Your task to perform on an android device: turn vacation reply on in the gmail app Image 0: 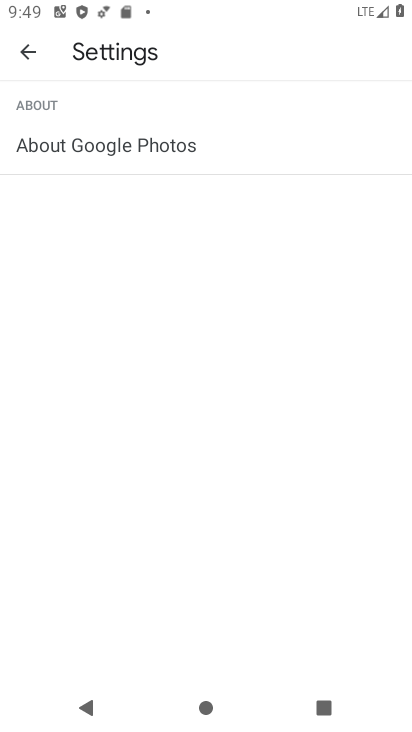
Step 0: press home button
Your task to perform on an android device: turn vacation reply on in the gmail app Image 1: 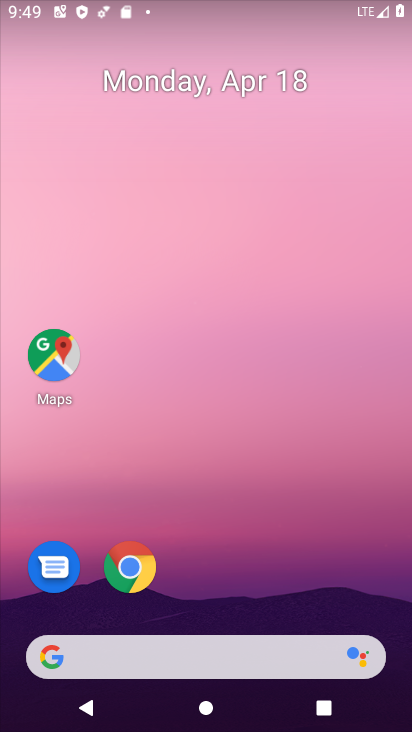
Step 1: drag from (301, 549) to (291, 175)
Your task to perform on an android device: turn vacation reply on in the gmail app Image 2: 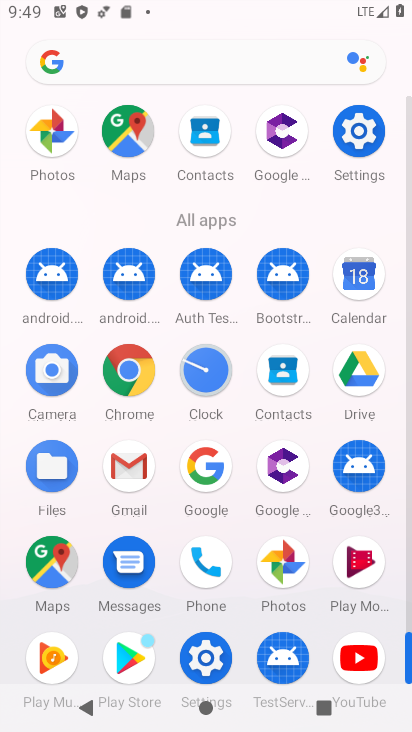
Step 2: click (142, 471)
Your task to perform on an android device: turn vacation reply on in the gmail app Image 3: 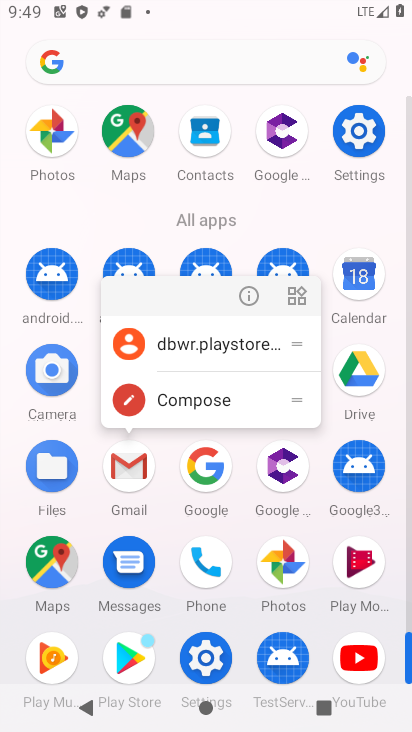
Step 3: click (143, 473)
Your task to perform on an android device: turn vacation reply on in the gmail app Image 4: 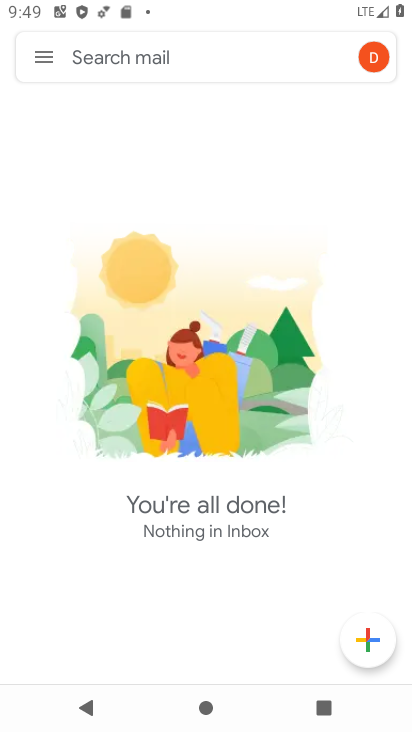
Step 4: click (40, 51)
Your task to perform on an android device: turn vacation reply on in the gmail app Image 5: 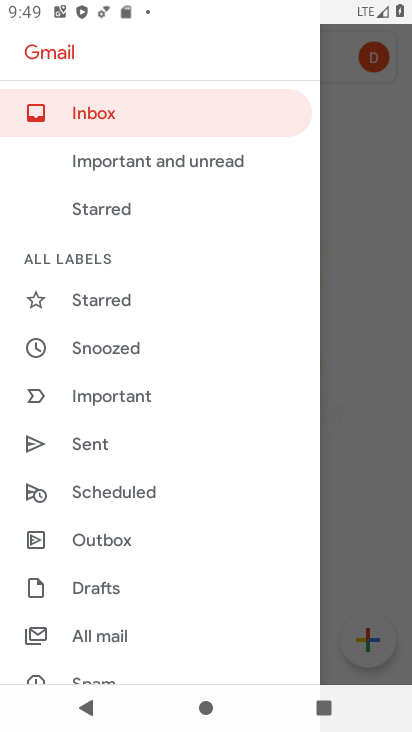
Step 5: drag from (194, 642) to (258, 302)
Your task to perform on an android device: turn vacation reply on in the gmail app Image 6: 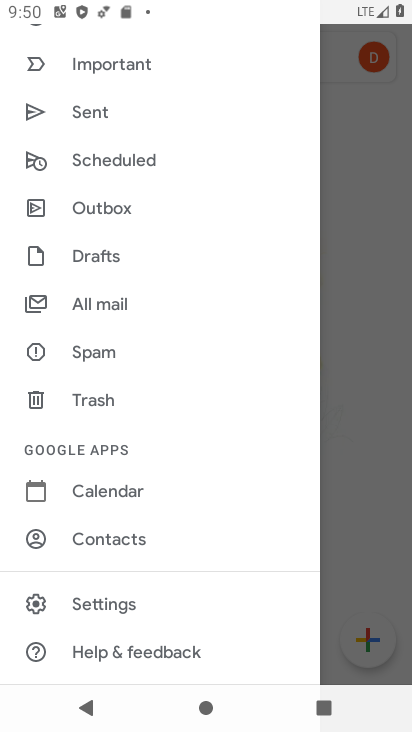
Step 6: click (95, 598)
Your task to perform on an android device: turn vacation reply on in the gmail app Image 7: 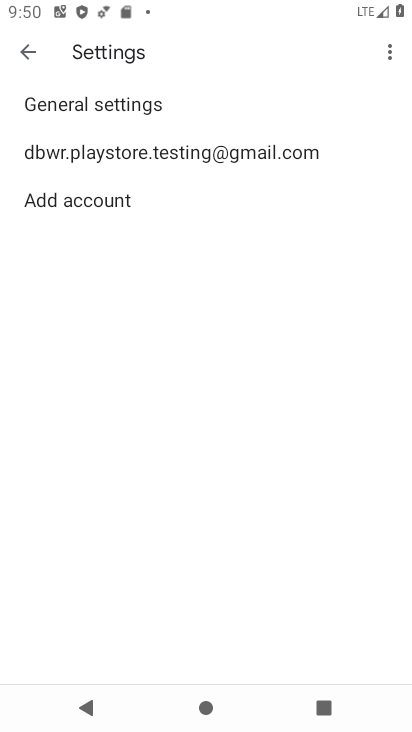
Step 7: click (267, 140)
Your task to perform on an android device: turn vacation reply on in the gmail app Image 8: 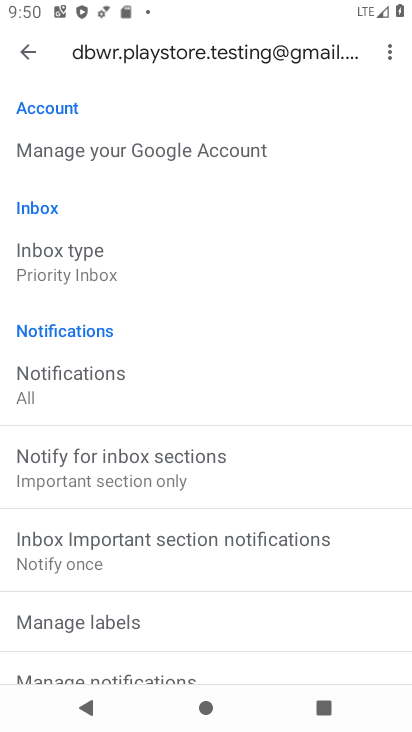
Step 8: drag from (235, 618) to (287, 300)
Your task to perform on an android device: turn vacation reply on in the gmail app Image 9: 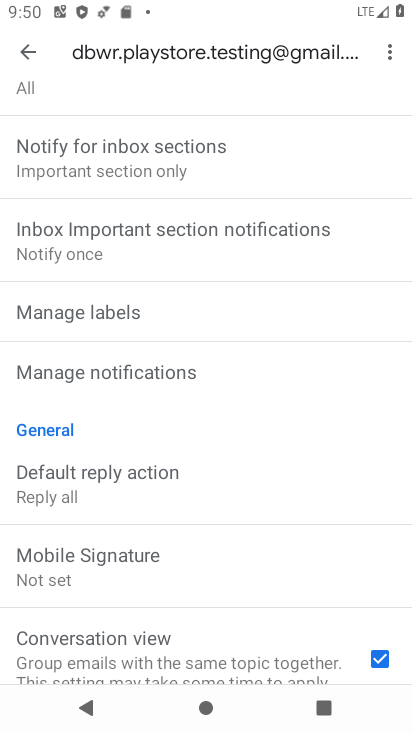
Step 9: drag from (287, 605) to (345, 301)
Your task to perform on an android device: turn vacation reply on in the gmail app Image 10: 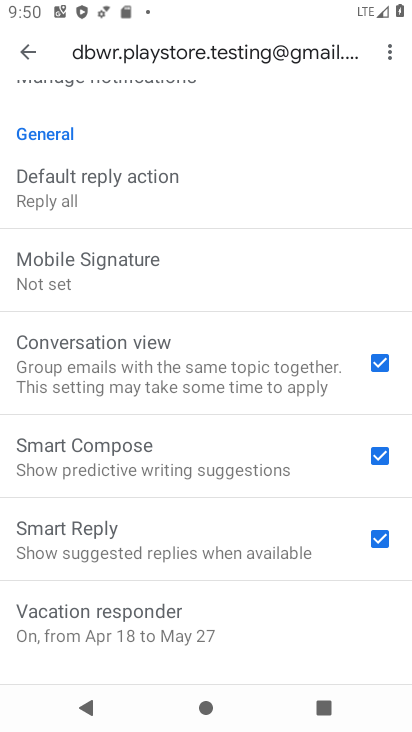
Step 10: click (160, 630)
Your task to perform on an android device: turn vacation reply on in the gmail app Image 11: 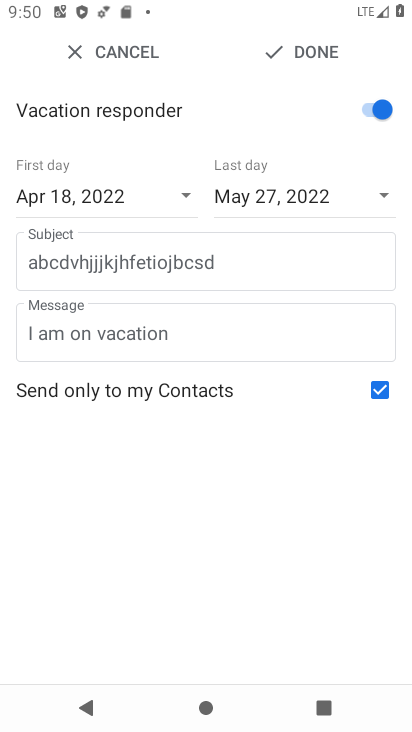
Step 11: task complete